Your task to perform on an android device: Search for a sofa on article.com Image 0: 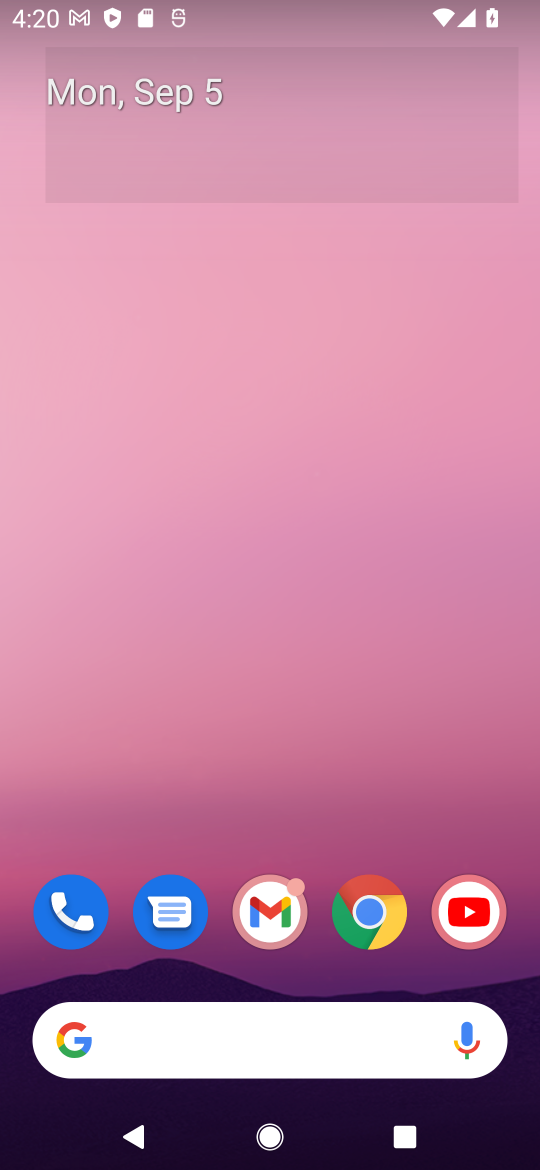
Step 0: click (344, 942)
Your task to perform on an android device: Search for a sofa on article.com Image 1: 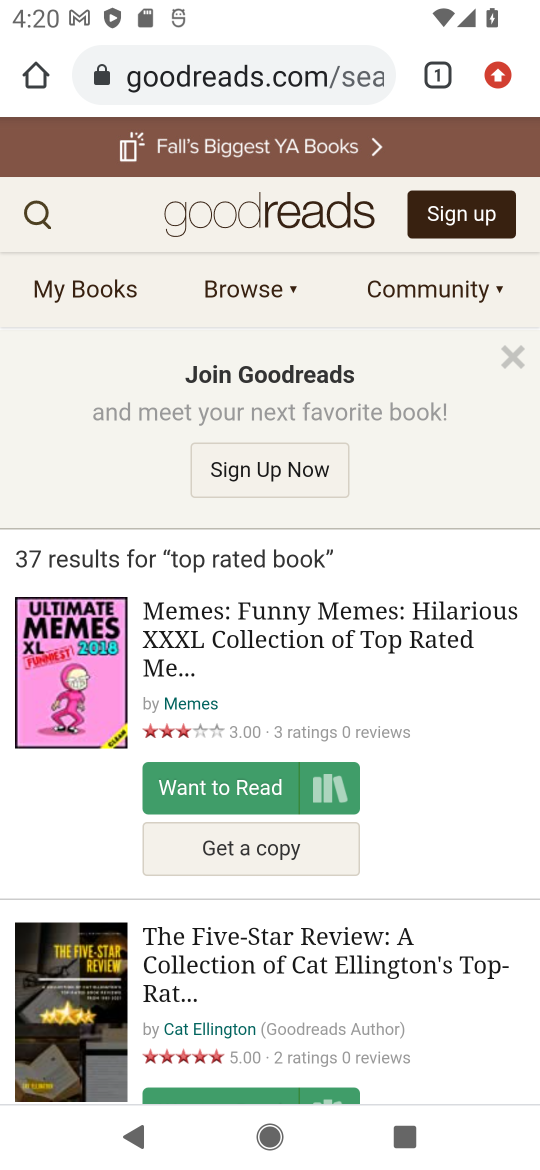
Step 1: click (304, 78)
Your task to perform on an android device: Search for a sofa on article.com Image 2: 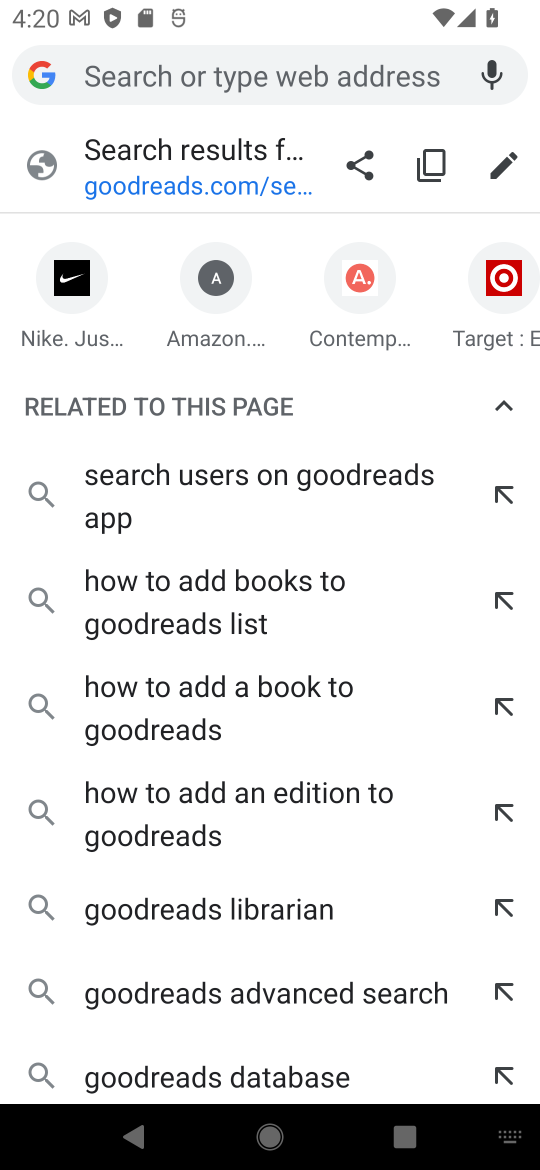
Step 2: type "article.com"
Your task to perform on an android device: Search for a sofa on article.com Image 3: 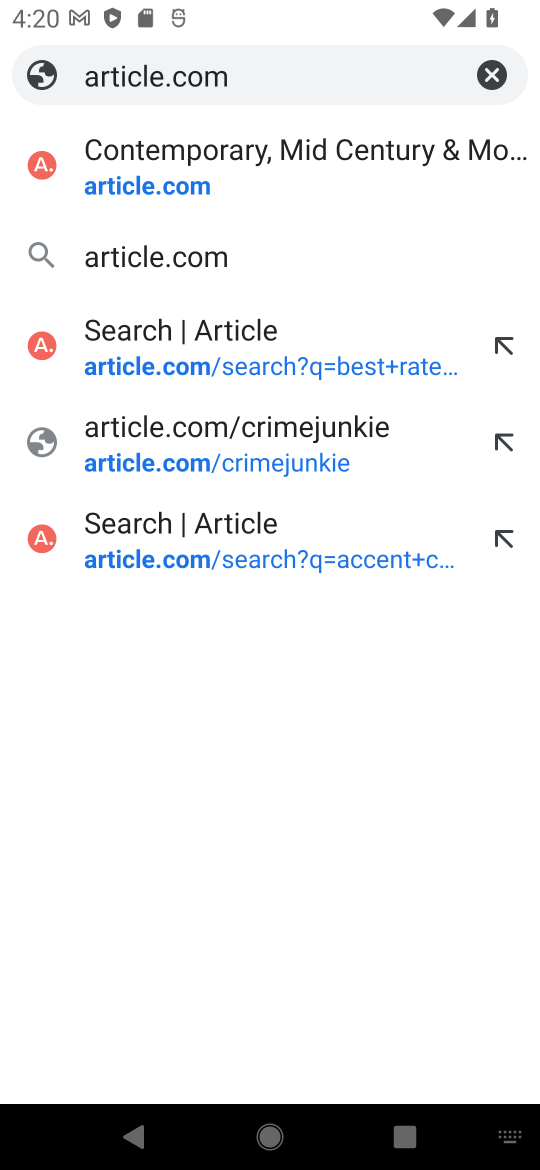
Step 3: press enter
Your task to perform on an android device: Search for a sofa on article.com Image 4: 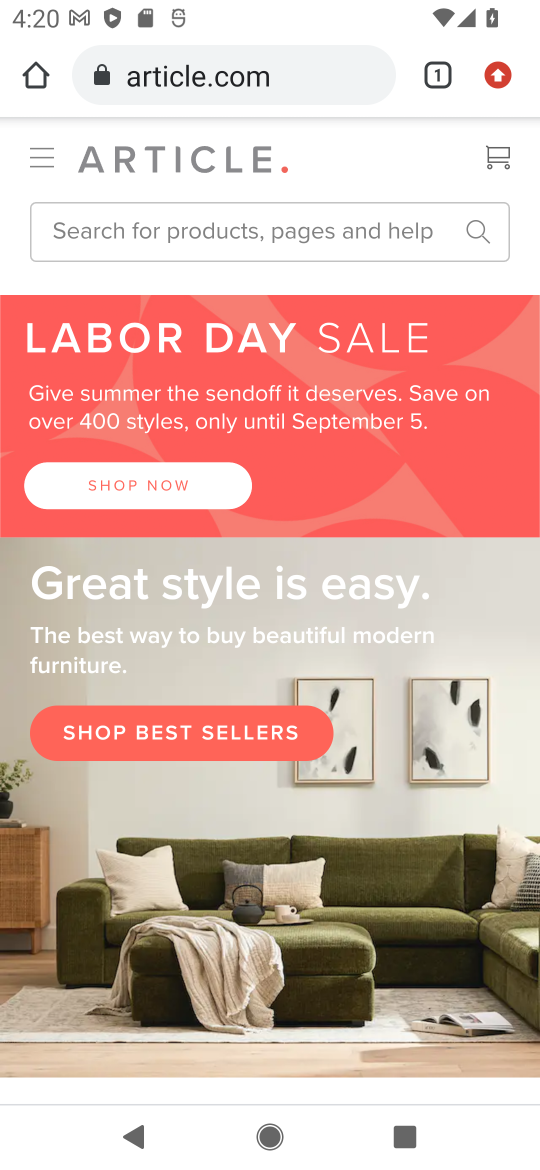
Step 4: click (144, 230)
Your task to perform on an android device: Search for a sofa on article.com Image 5: 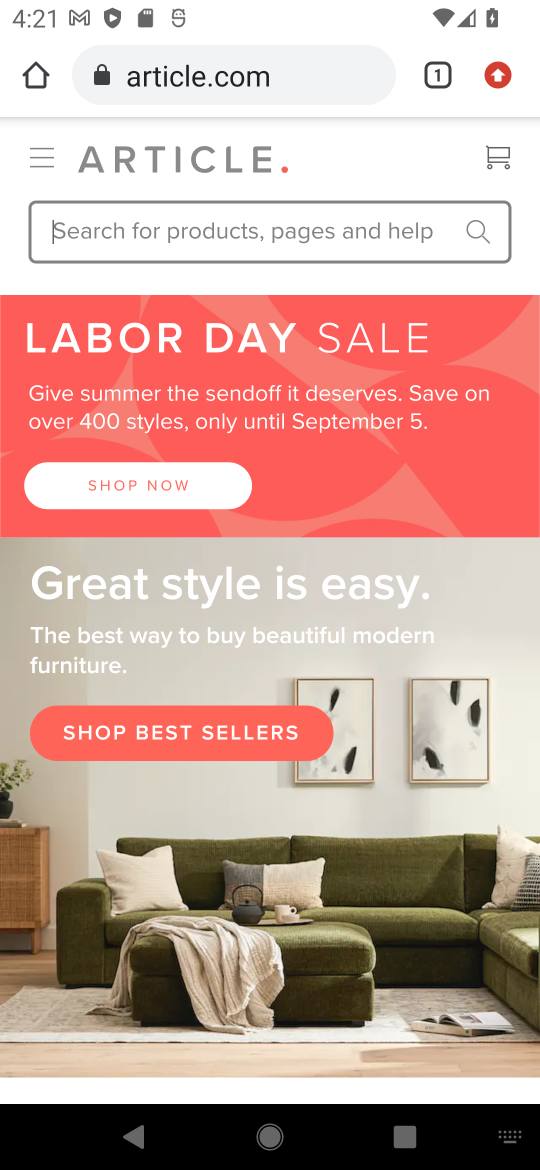
Step 5: type "sofa"
Your task to perform on an android device: Search for a sofa on article.com Image 6: 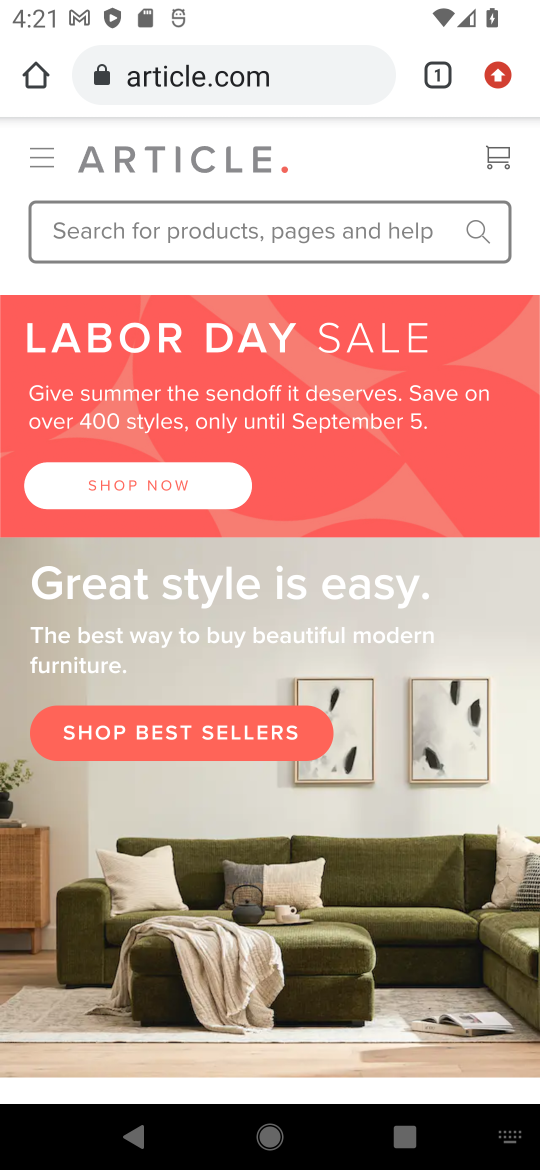
Step 6: type ""
Your task to perform on an android device: Search for a sofa on article.com Image 7: 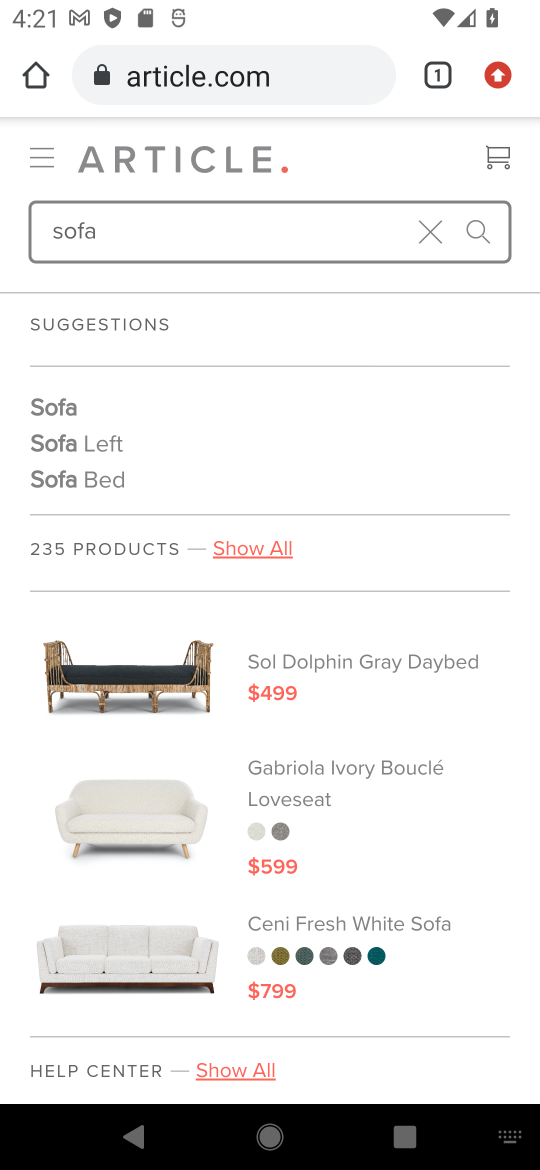
Step 7: task complete